Your task to perform on an android device: turn off translation in the chrome app Image 0: 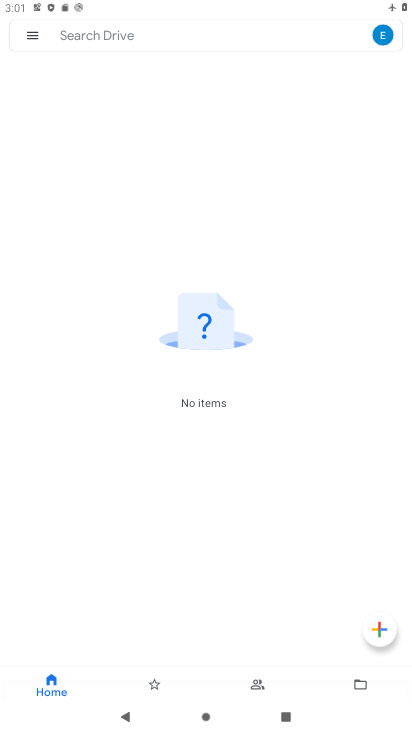
Step 0: press home button
Your task to perform on an android device: turn off translation in the chrome app Image 1: 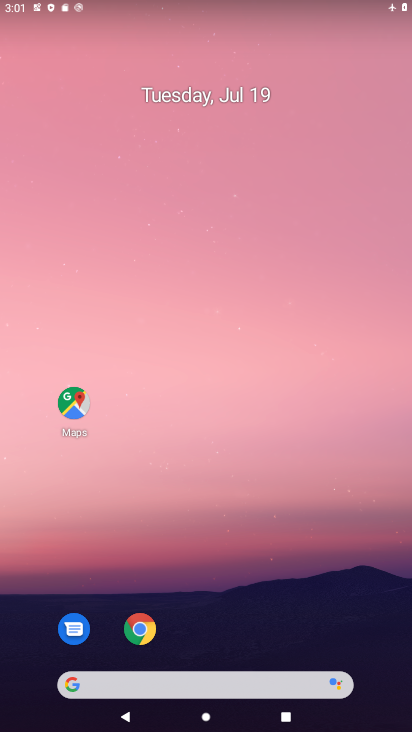
Step 1: click (149, 624)
Your task to perform on an android device: turn off translation in the chrome app Image 2: 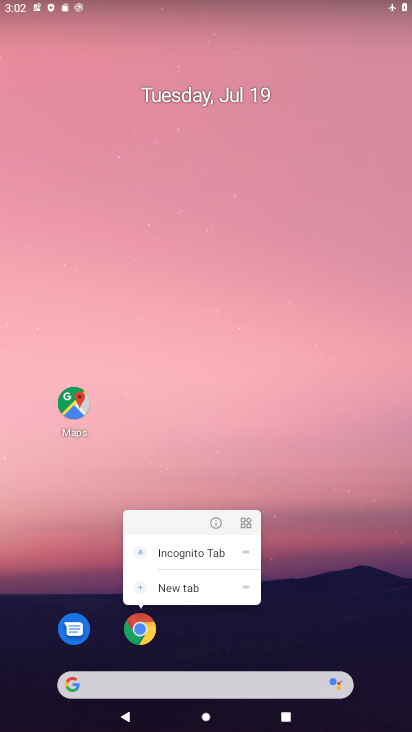
Step 2: click (149, 624)
Your task to perform on an android device: turn off translation in the chrome app Image 3: 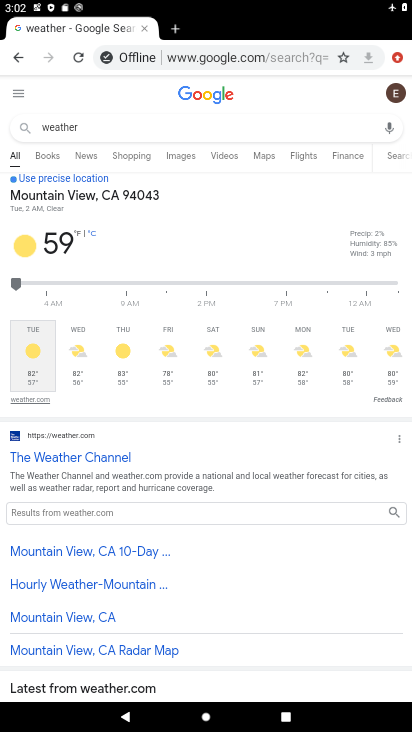
Step 3: drag from (400, 56) to (325, 385)
Your task to perform on an android device: turn off translation in the chrome app Image 4: 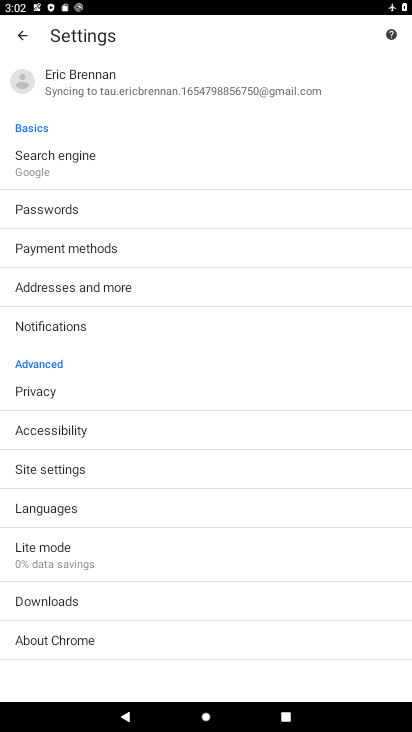
Step 4: click (71, 508)
Your task to perform on an android device: turn off translation in the chrome app Image 5: 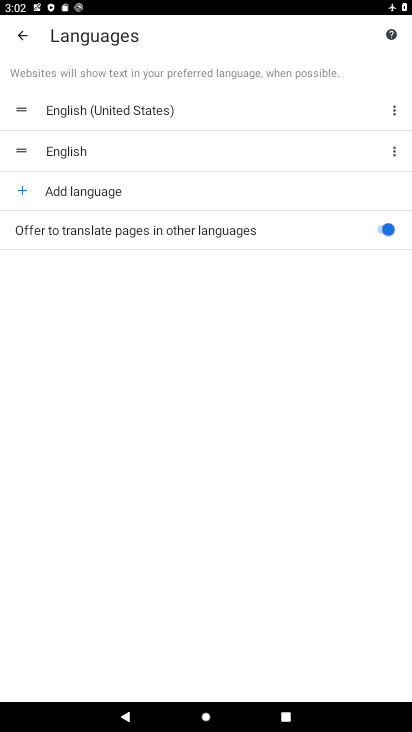
Step 5: click (377, 224)
Your task to perform on an android device: turn off translation in the chrome app Image 6: 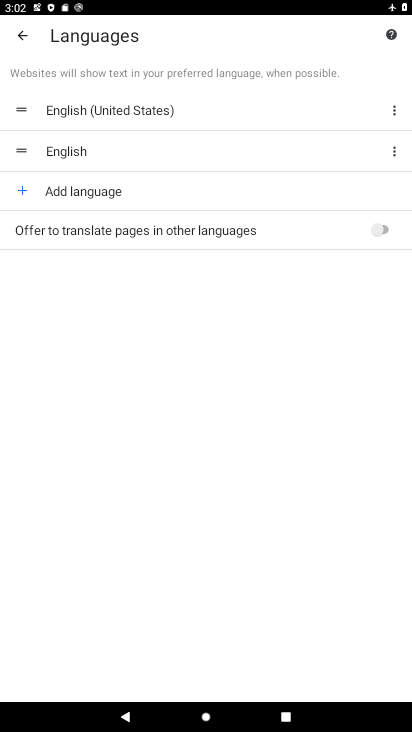
Step 6: task complete